Your task to perform on an android device: Open maps Image 0: 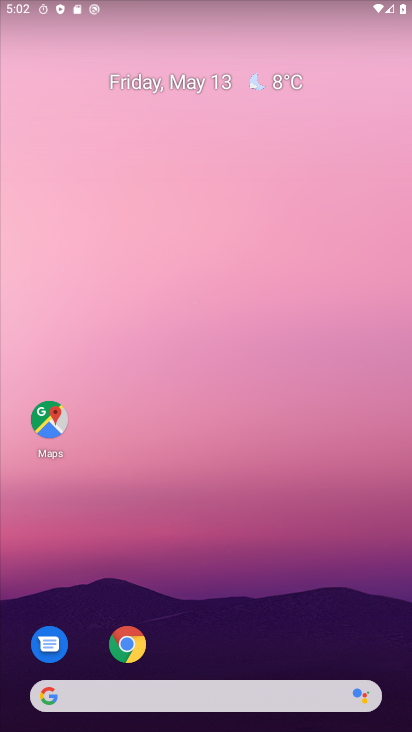
Step 0: click (49, 435)
Your task to perform on an android device: Open maps Image 1: 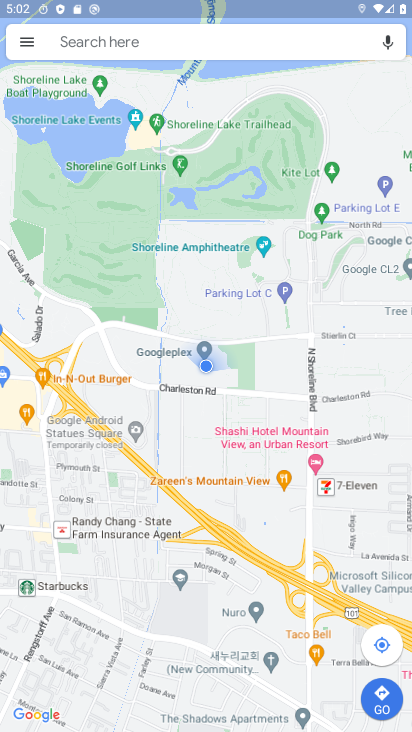
Step 1: task complete